Your task to perform on an android device: open a bookmark in the chrome app Image 0: 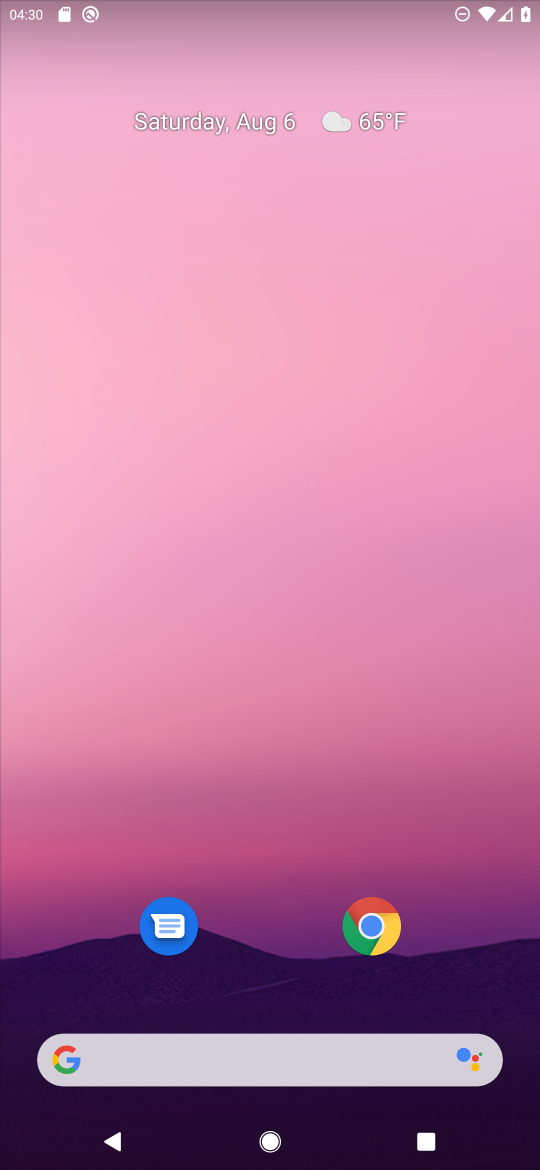
Step 0: click (374, 965)
Your task to perform on an android device: open a bookmark in the chrome app Image 1: 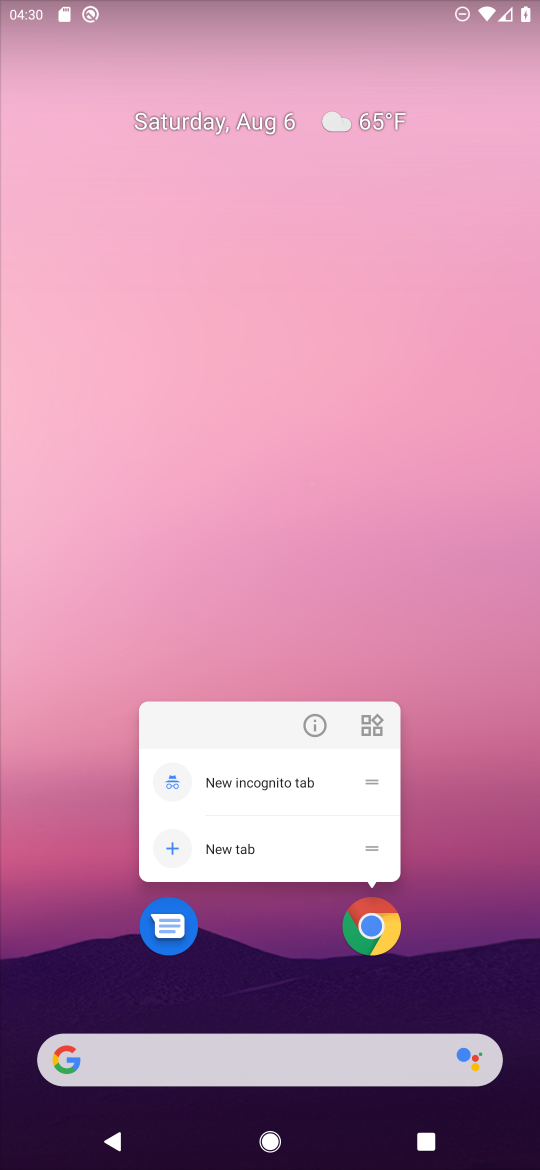
Step 1: click (372, 948)
Your task to perform on an android device: open a bookmark in the chrome app Image 2: 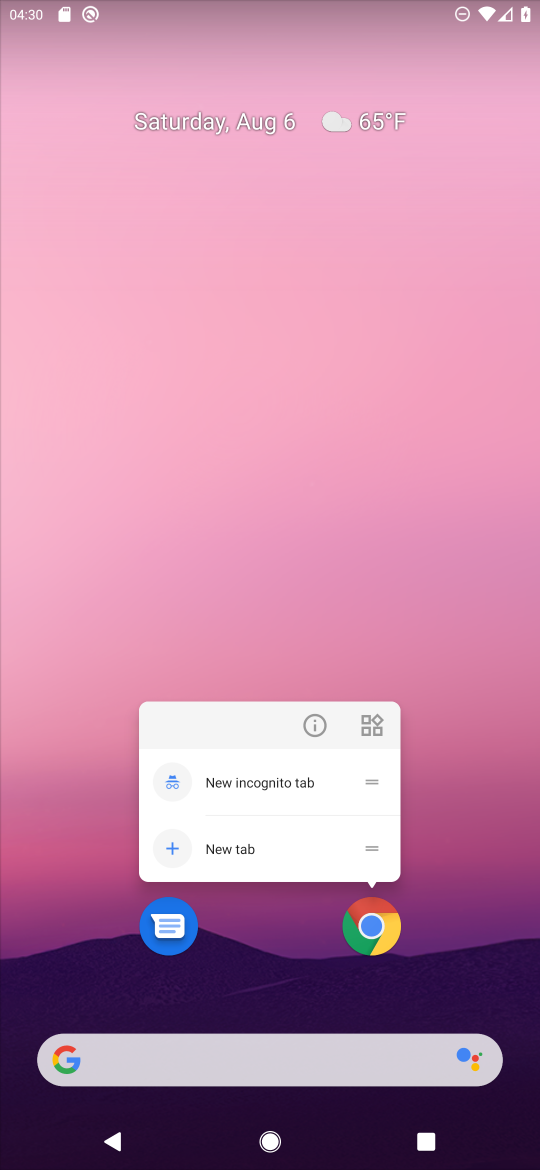
Step 2: click (372, 948)
Your task to perform on an android device: open a bookmark in the chrome app Image 3: 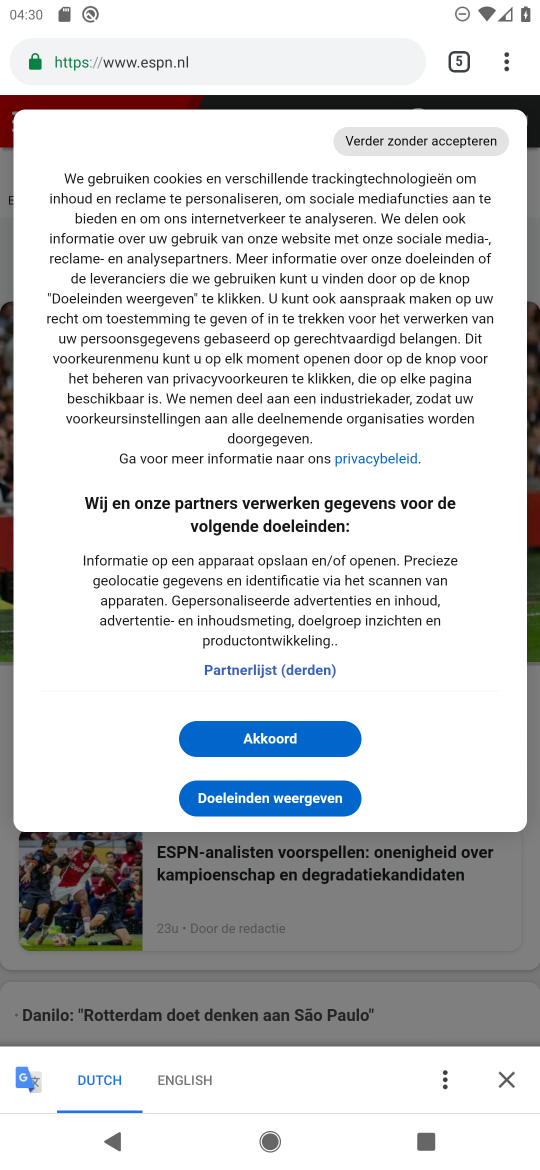
Step 3: click (512, 62)
Your task to perform on an android device: open a bookmark in the chrome app Image 4: 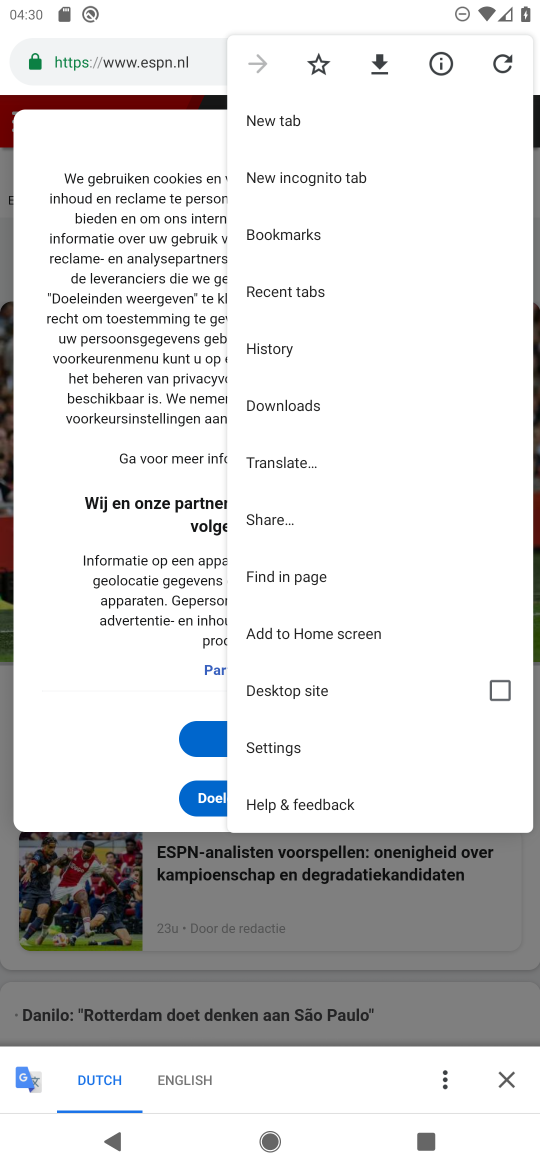
Step 4: click (326, 242)
Your task to perform on an android device: open a bookmark in the chrome app Image 5: 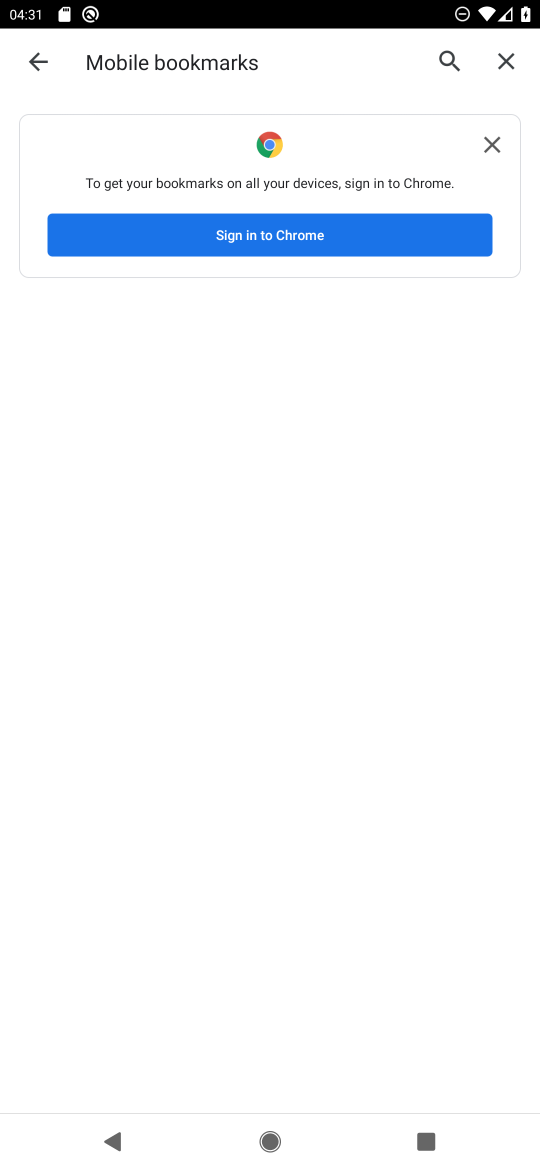
Step 5: task complete